Your task to perform on an android device: Open notification settings Image 0: 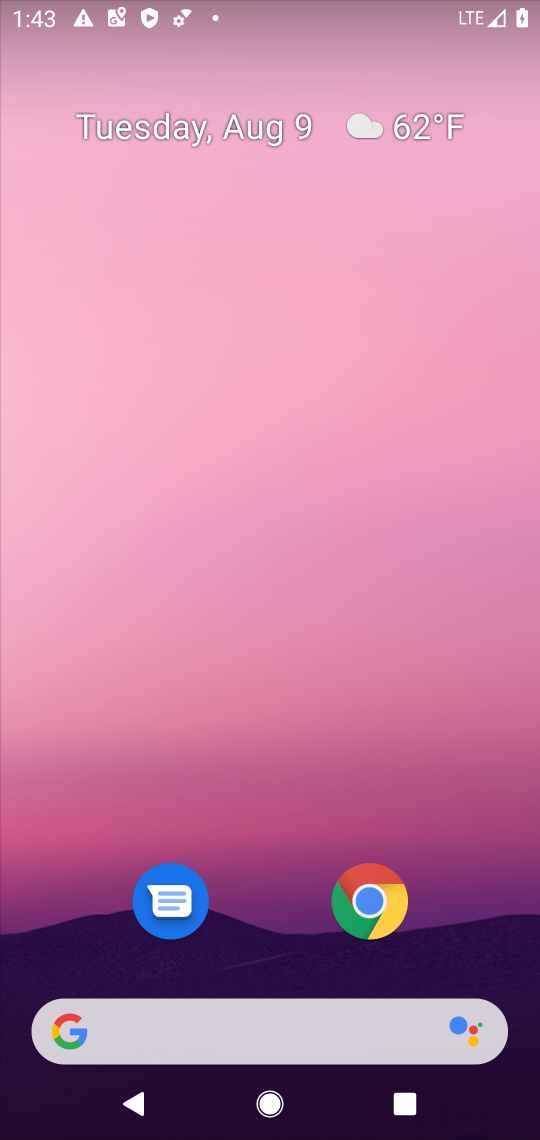
Step 0: drag from (525, 999) to (448, 153)
Your task to perform on an android device: Open notification settings Image 1: 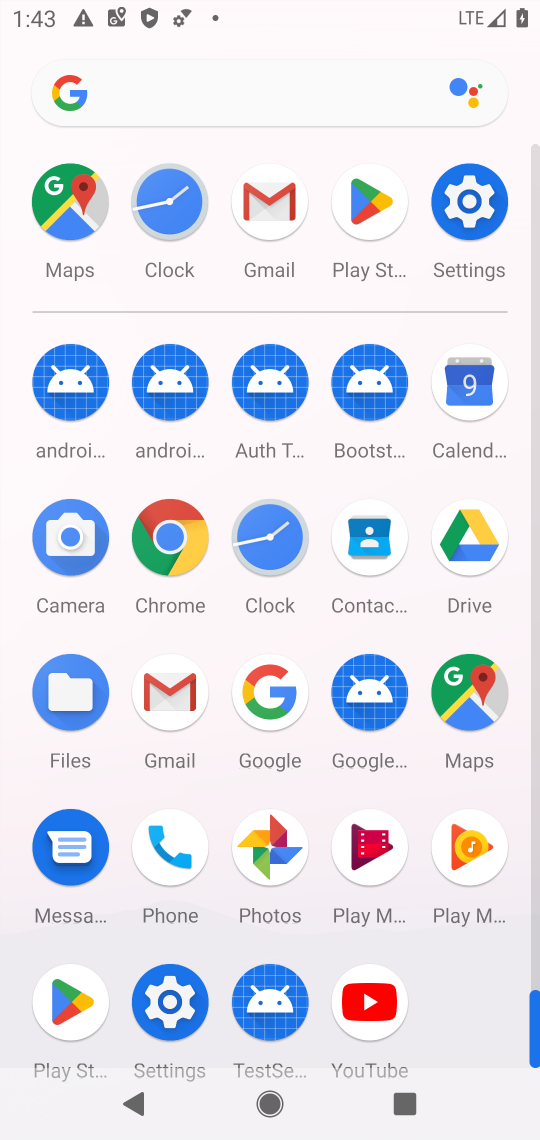
Step 1: click (168, 1003)
Your task to perform on an android device: Open notification settings Image 2: 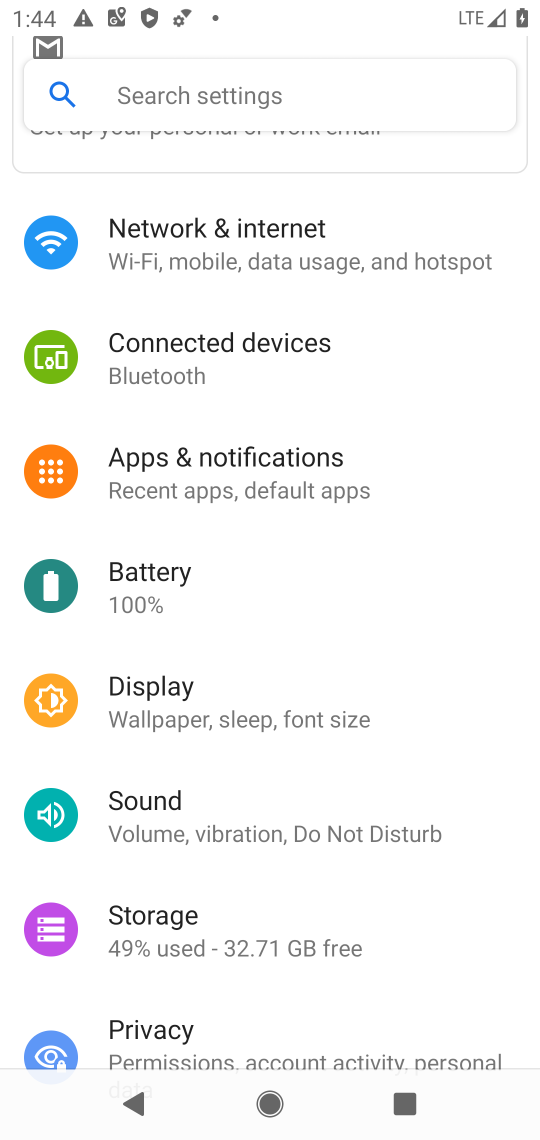
Step 2: click (187, 451)
Your task to perform on an android device: Open notification settings Image 3: 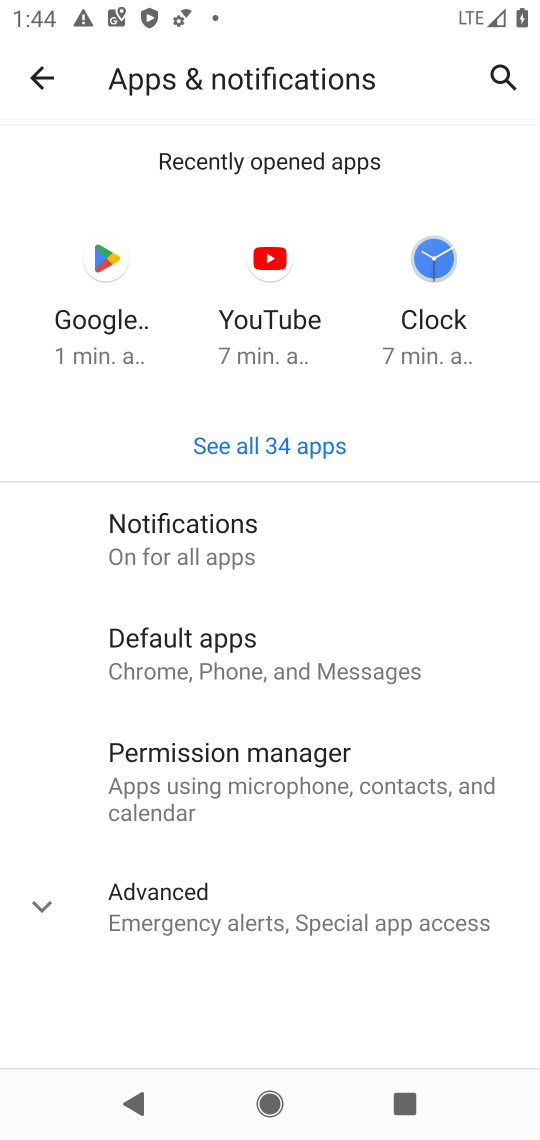
Step 3: click (174, 541)
Your task to perform on an android device: Open notification settings Image 4: 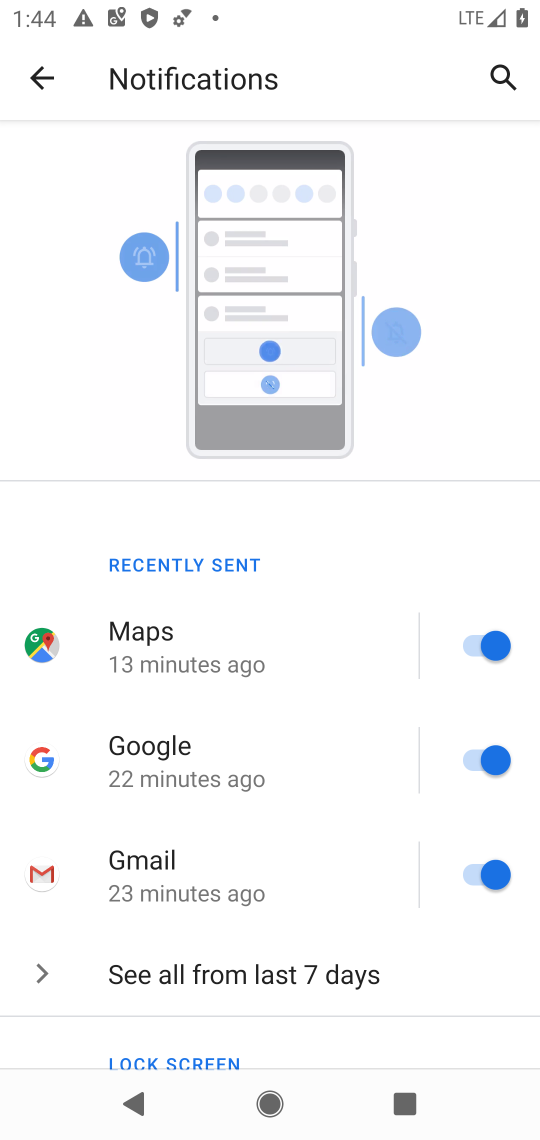
Step 4: drag from (397, 1007) to (382, 334)
Your task to perform on an android device: Open notification settings Image 5: 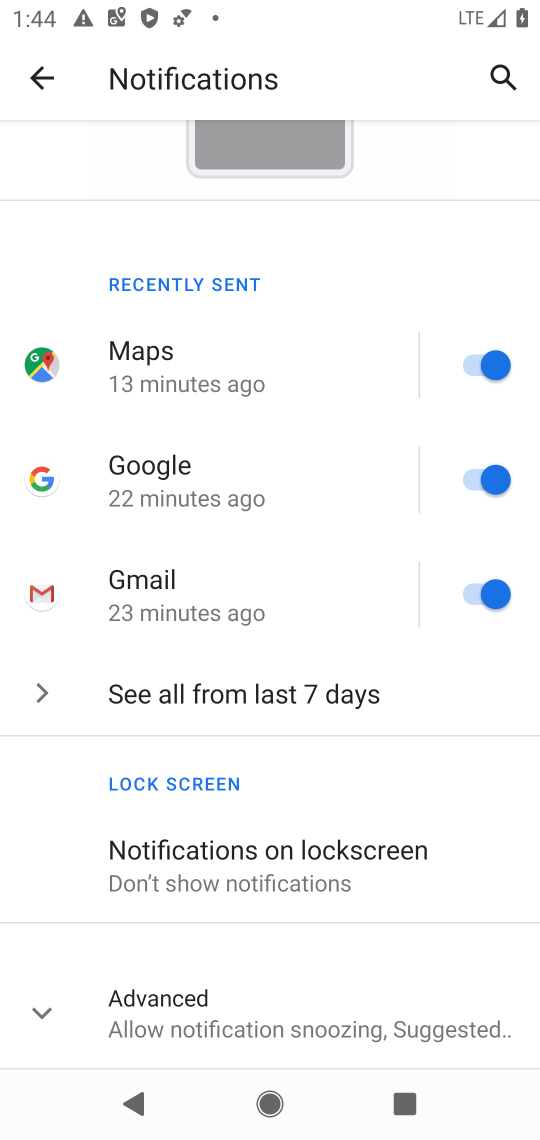
Step 5: drag from (415, 972) to (404, 452)
Your task to perform on an android device: Open notification settings Image 6: 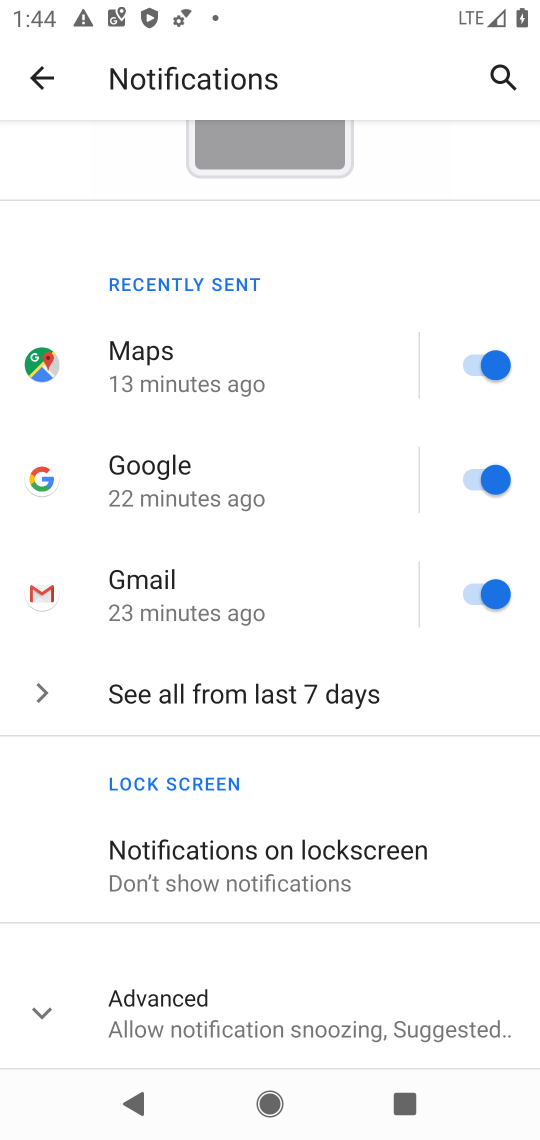
Step 6: click (42, 1014)
Your task to perform on an android device: Open notification settings Image 7: 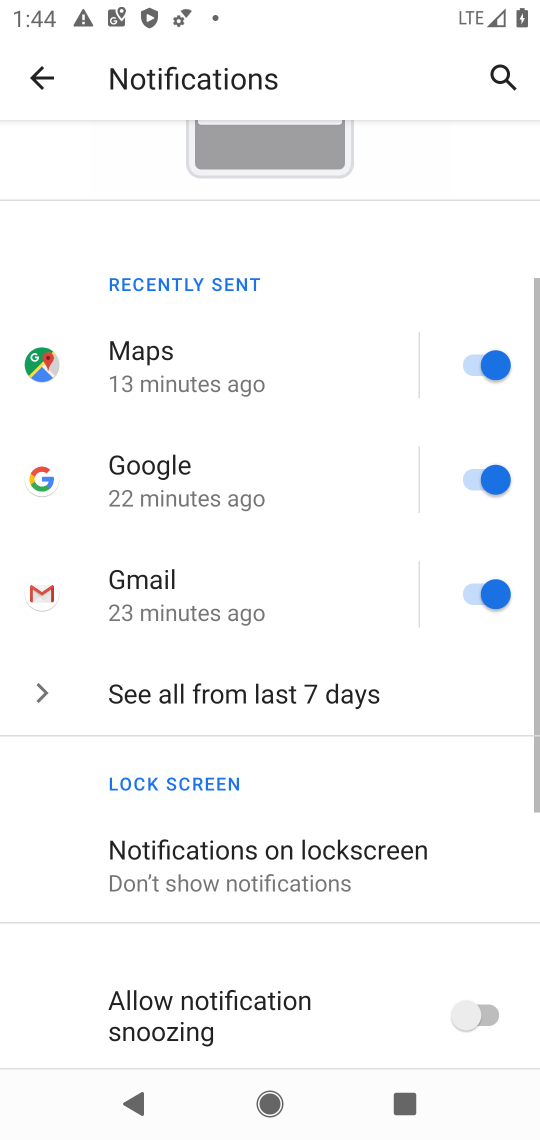
Step 7: task complete